Your task to perform on an android device: open a bookmark in the chrome app Image 0: 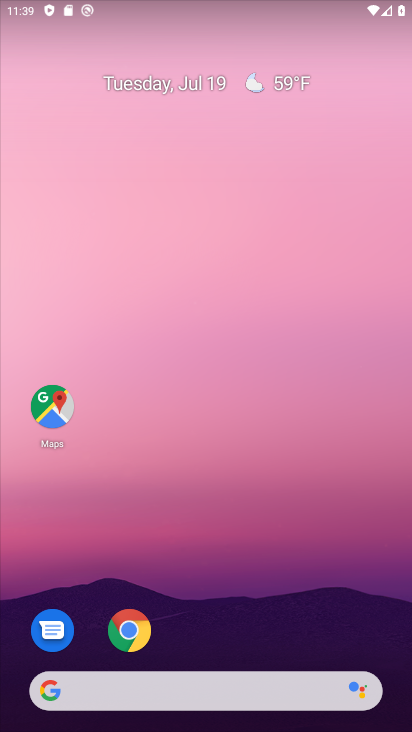
Step 0: drag from (317, 430) to (260, 136)
Your task to perform on an android device: open a bookmark in the chrome app Image 1: 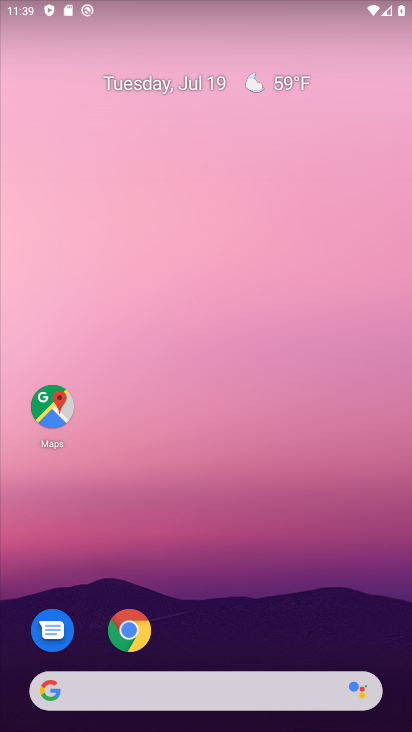
Step 1: drag from (313, 386) to (309, 28)
Your task to perform on an android device: open a bookmark in the chrome app Image 2: 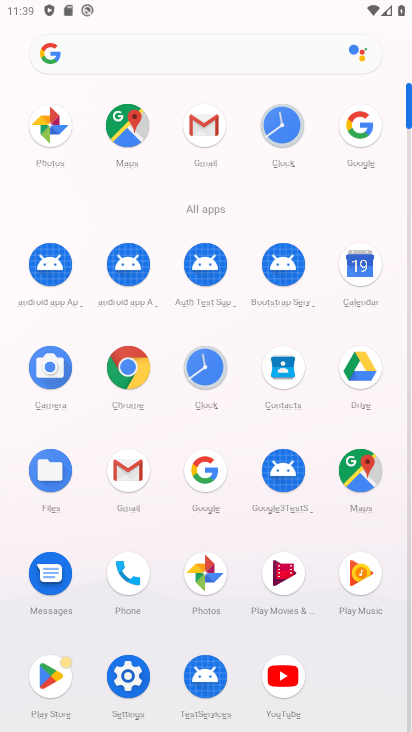
Step 2: click (128, 369)
Your task to perform on an android device: open a bookmark in the chrome app Image 3: 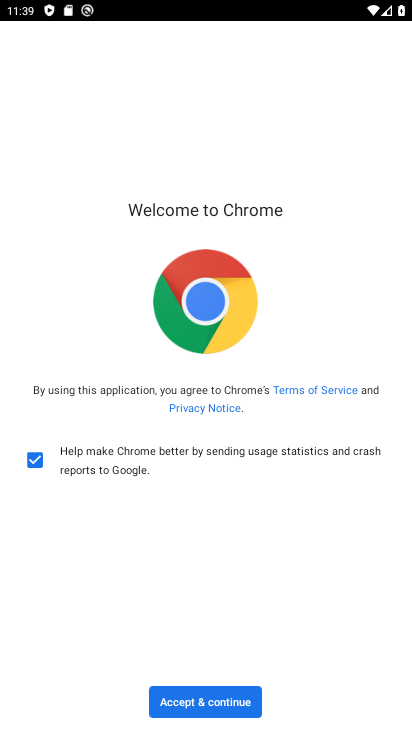
Step 3: click (221, 704)
Your task to perform on an android device: open a bookmark in the chrome app Image 4: 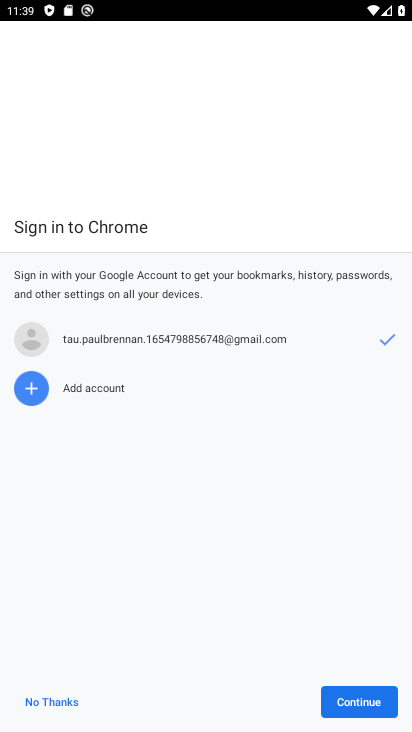
Step 4: click (50, 701)
Your task to perform on an android device: open a bookmark in the chrome app Image 5: 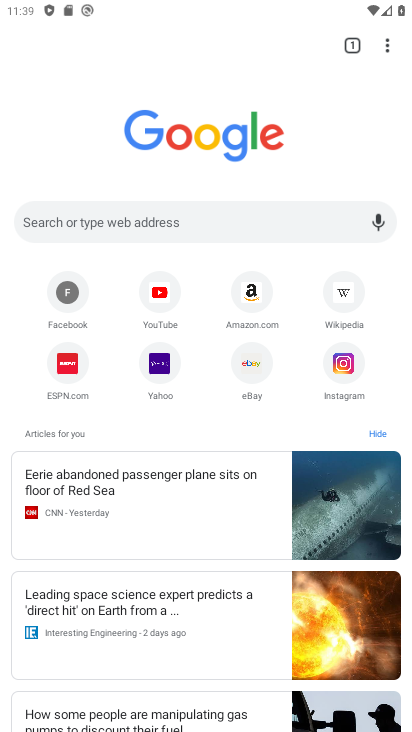
Step 5: drag from (391, 43) to (352, 216)
Your task to perform on an android device: open a bookmark in the chrome app Image 6: 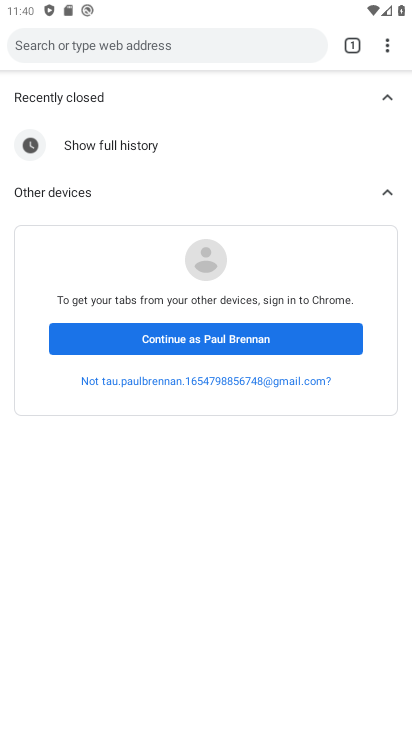
Step 6: click (346, 168)
Your task to perform on an android device: open a bookmark in the chrome app Image 7: 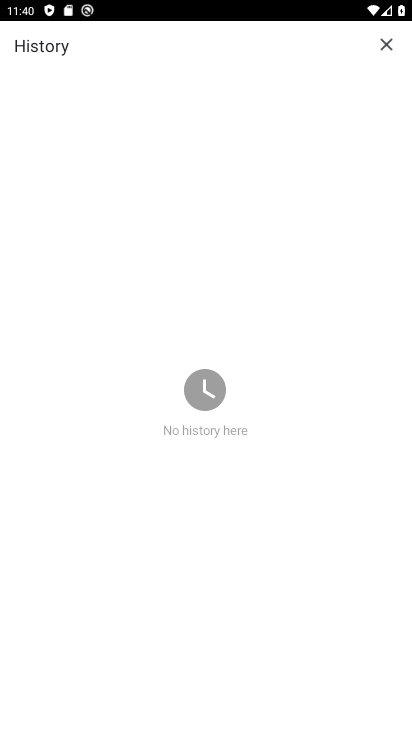
Step 7: task complete